Your task to perform on an android device: Go to accessibility settings Image 0: 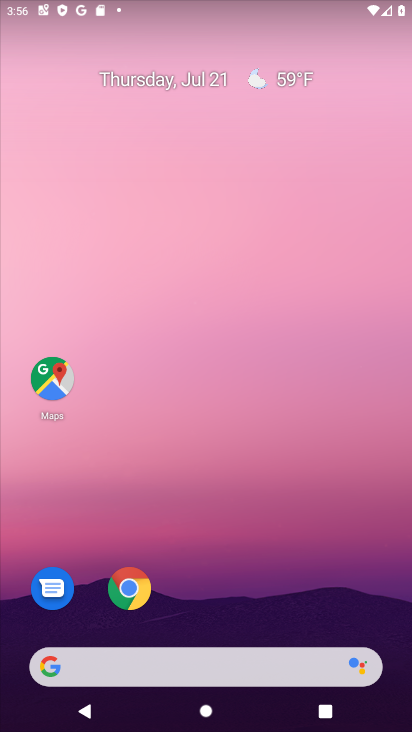
Step 0: drag from (233, 668) to (230, 344)
Your task to perform on an android device: Go to accessibility settings Image 1: 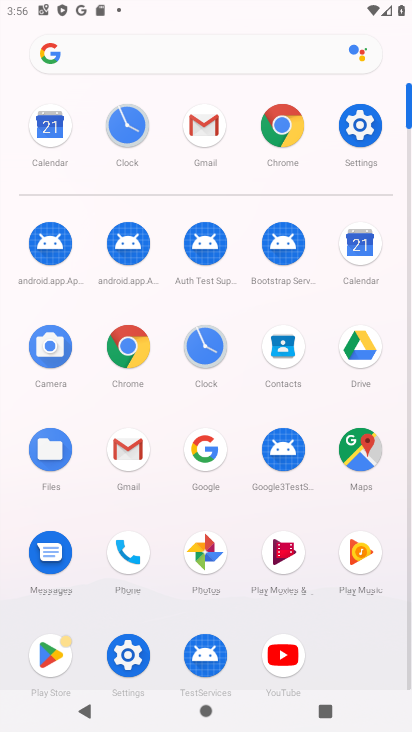
Step 1: click (363, 131)
Your task to perform on an android device: Go to accessibility settings Image 2: 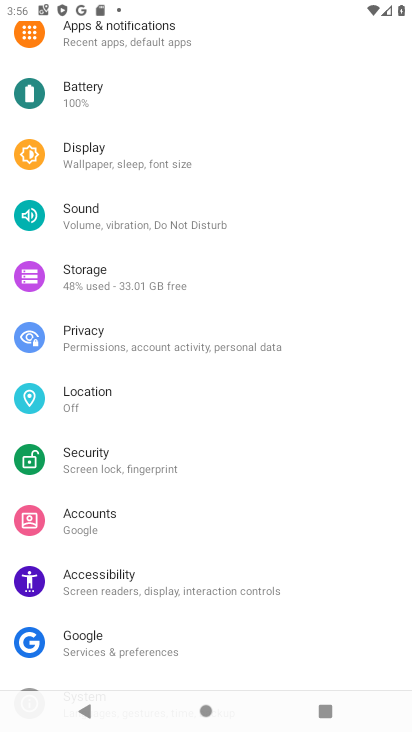
Step 2: click (116, 578)
Your task to perform on an android device: Go to accessibility settings Image 3: 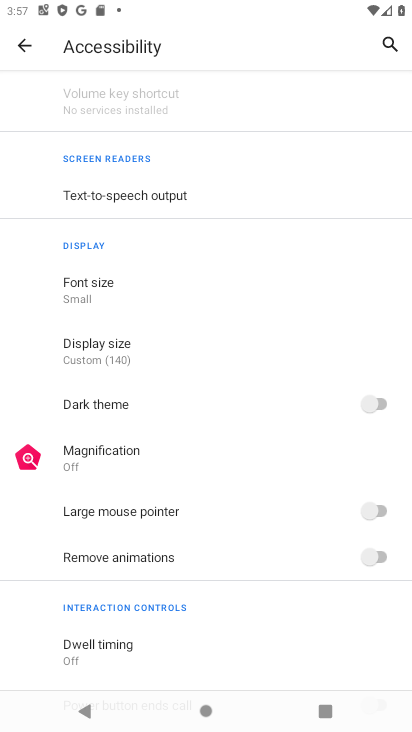
Step 3: task complete